Your task to perform on an android device: turn on data saver in the chrome app Image 0: 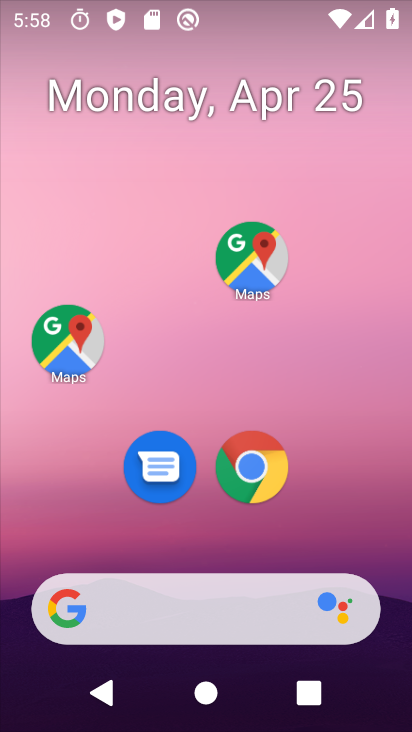
Step 0: drag from (371, 506) to (374, 0)
Your task to perform on an android device: turn on data saver in the chrome app Image 1: 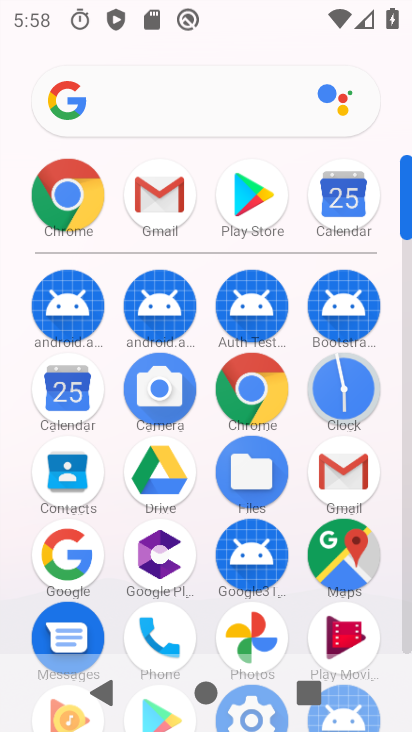
Step 1: click (248, 394)
Your task to perform on an android device: turn on data saver in the chrome app Image 2: 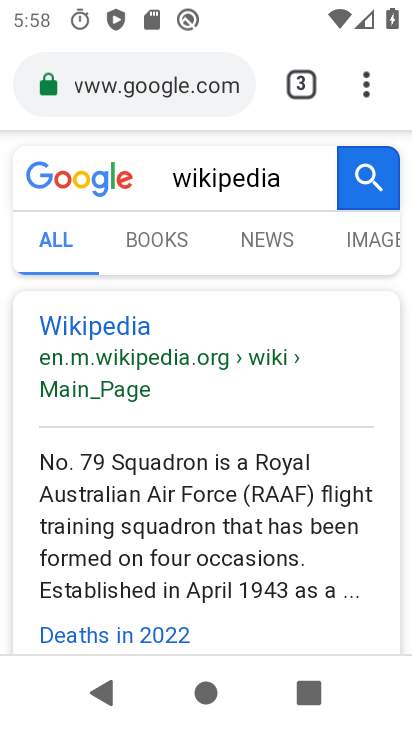
Step 2: drag from (368, 73) to (235, 522)
Your task to perform on an android device: turn on data saver in the chrome app Image 3: 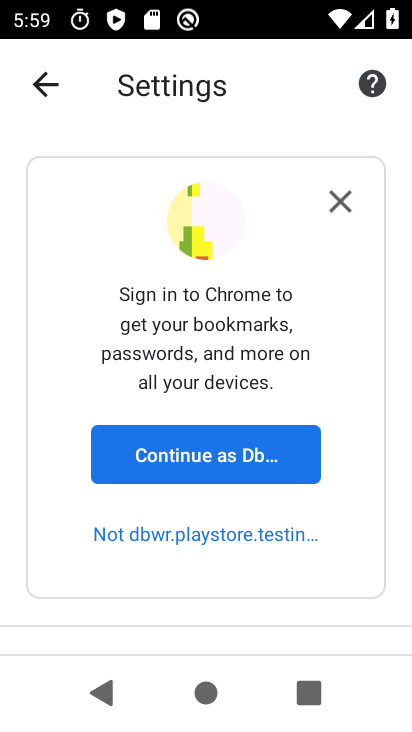
Step 3: drag from (286, 601) to (278, 4)
Your task to perform on an android device: turn on data saver in the chrome app Image 4: 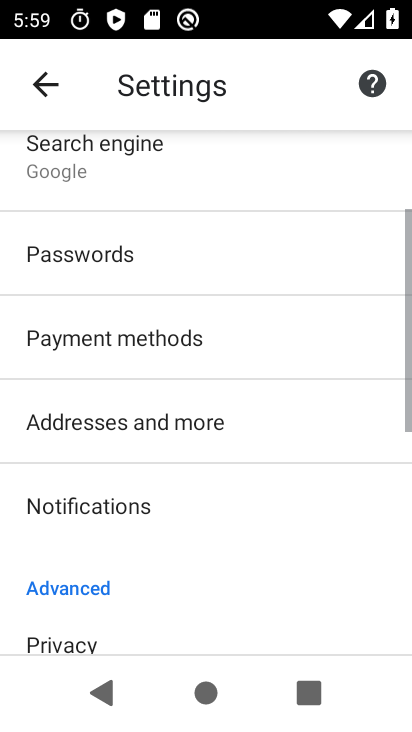
Step 4: drag from (308, 638) to (362, 106)
Your task to perform on an android device: turn on data saver in the chrome app Image 5: 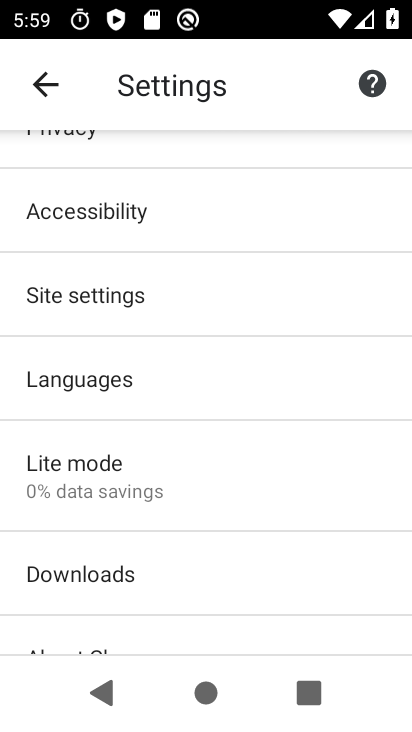
Step 5: click (188, 453)
Your task to perform on an android device: turn on data saver in the chrome app Image 6: 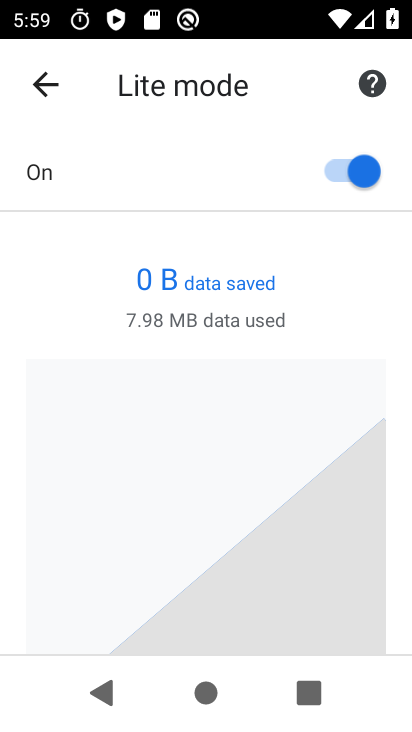
Step 6: task complete